Your task to perform on an android device: Open Android settings Image 0: 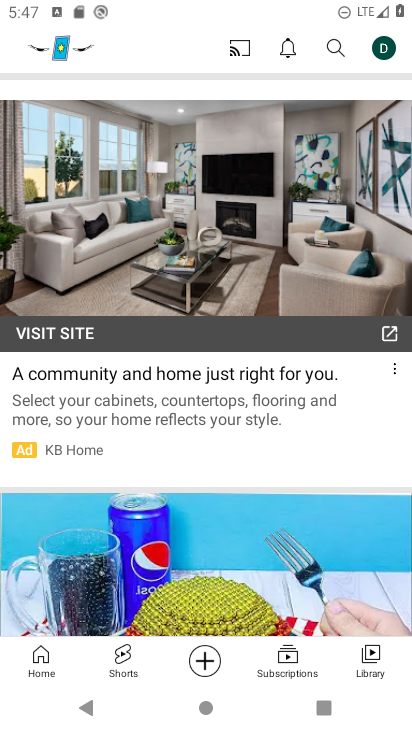
Step 0: press home button
Your task to perform on an android device: Open Android settings Image 1: 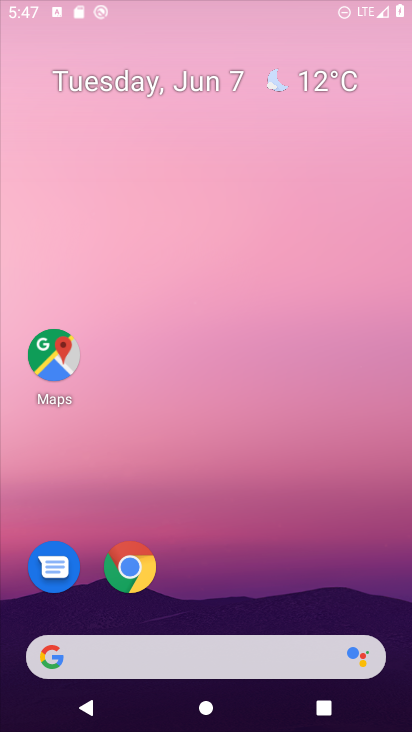
Step 1: drag from (312, 661) to (311, 12)
Your task to perform on an android device: Open Android settings Image 2: 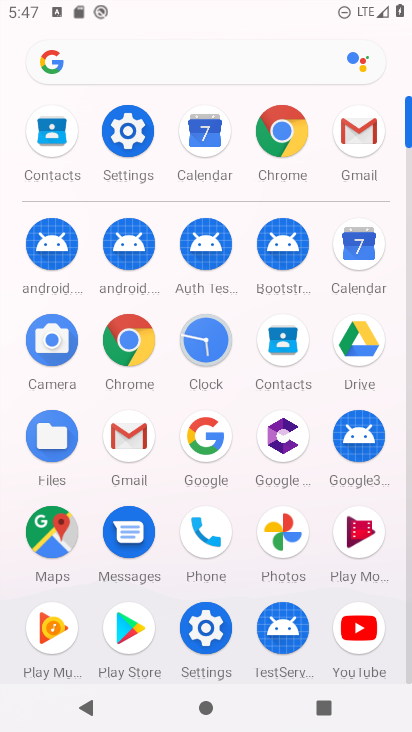
Step 2: click (142, 140)
Your task to perform on an android device: Open Android settings Image 3: 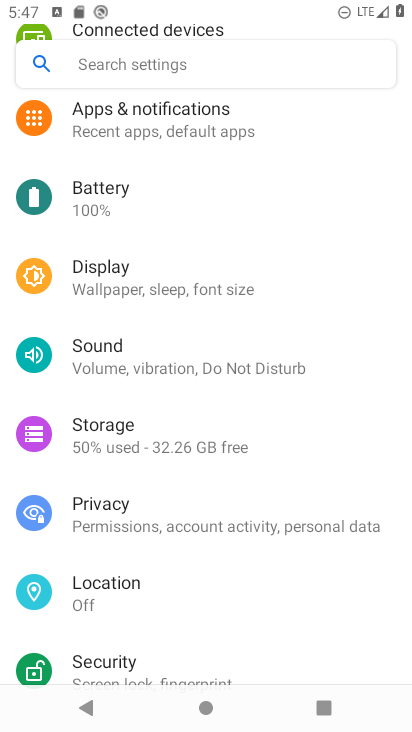
Step 3: drag from (225, 601) to (245, 17)
Your task to perform on an android device: Open Android settings Image 4: 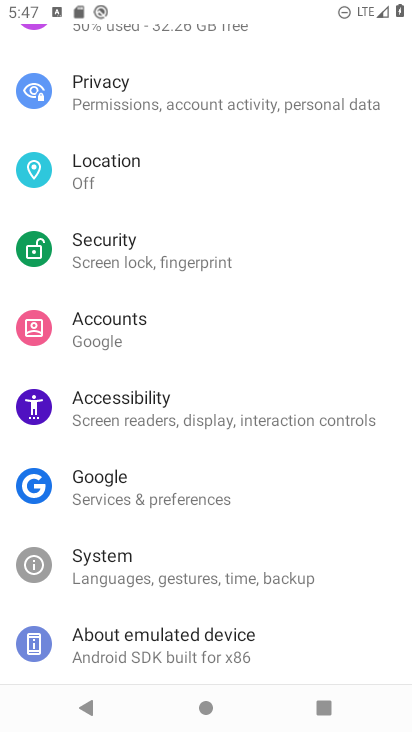
Step 4: click (194, 657)
Your task to perform on an android device: Open Android settings Image 5: 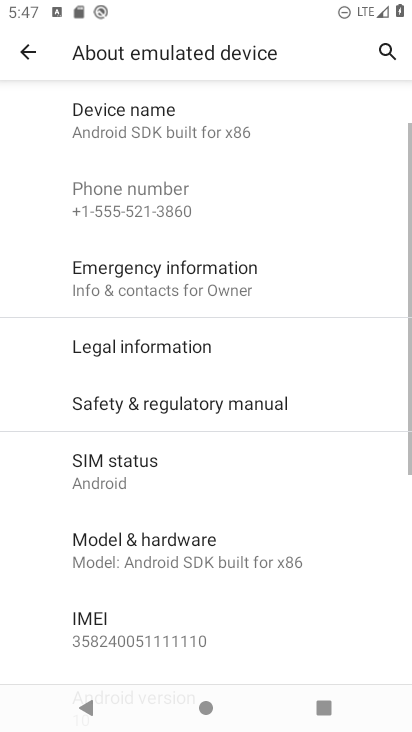
Step 5: drag from (209, 623) to (269, 271)
Your task to perform on an android device: Open Android settings Image 6: 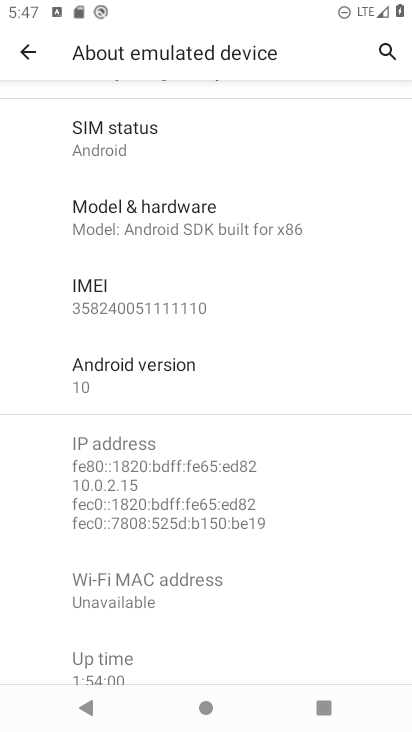
Step 6: click (207, 381)
Your task to perform on an android device: Open Android settings Image 7: 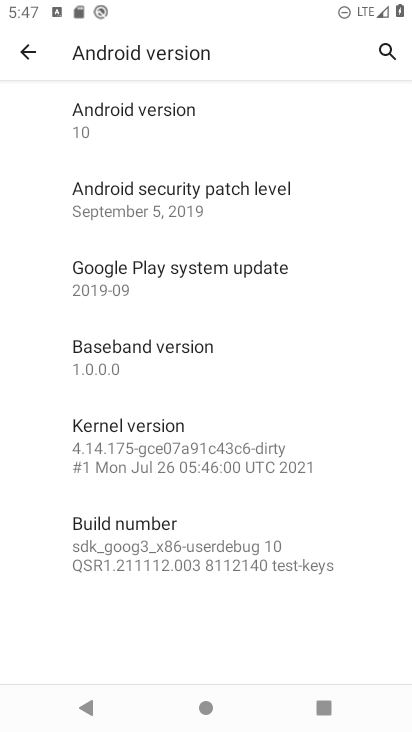
Step 7: task complete